Your task to perform on an android device: delete the emails in spam in the gmail app Image 0: 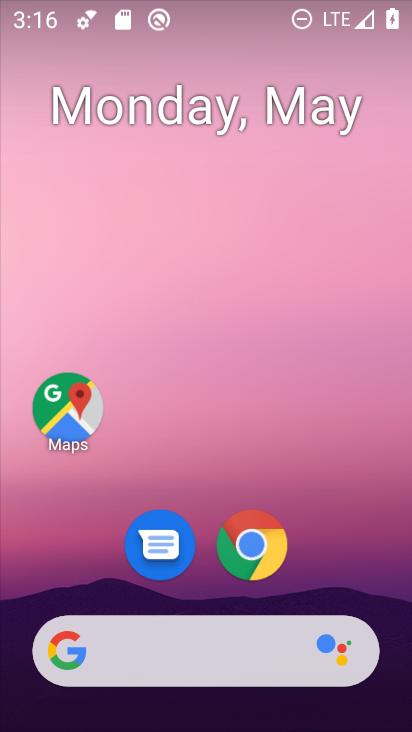
Step 0: click (231, 573)
Your task to perform on an android device: delete the emails in spam in the gmail app Image 1: 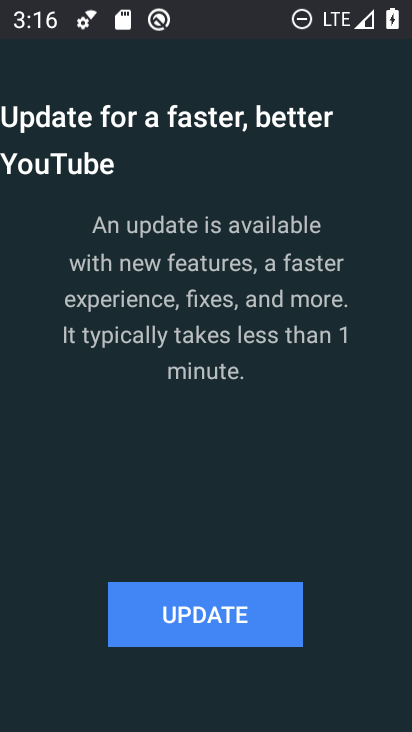
Step 1: press home button
Your task to perform on an android device: delete the emails in spam in the gmail app Image 2: 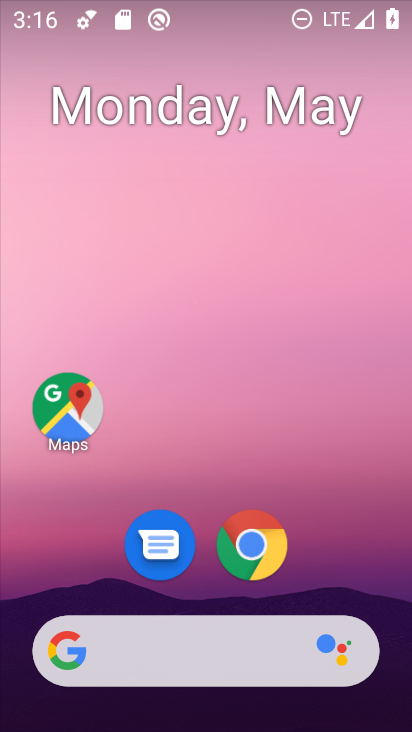
Step 2: drag from (316, 501) to (338, 206)
Your task to perform on an android device: delete the emails in spam in the gmail app Image 3: 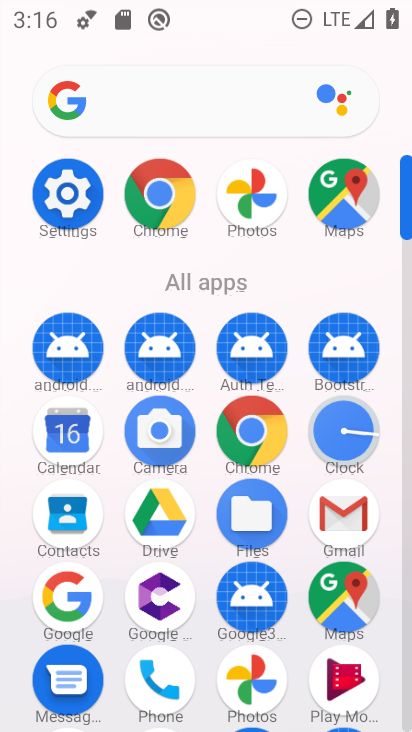
Step 3: click (340, 526)
Your task to perform on an android device: delete the emails in spam in the gmail app Image 4: 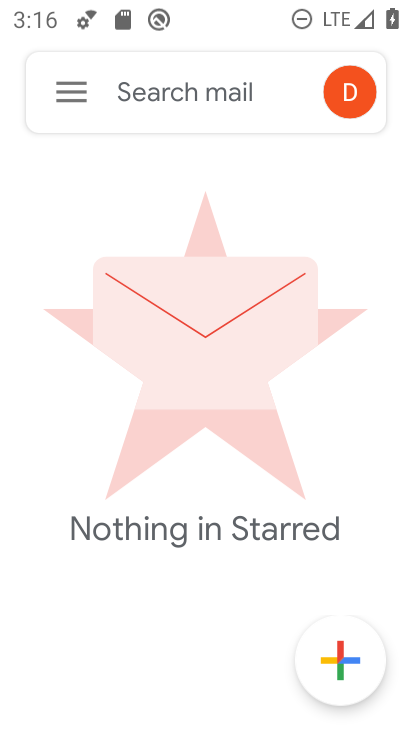
Step 4: click (70, 98)
Your task to perform on an android device: delete the emails in spam in the gmail app Image 5: 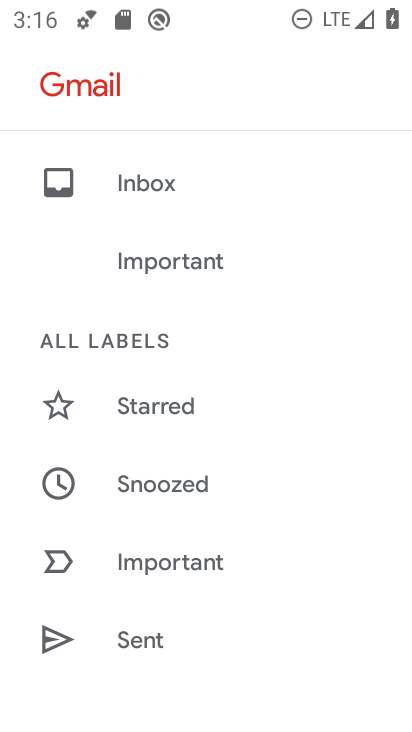
Step 5: drag from (239, 596) to (237, 270)
Your task to perform on an android device: delete the emails in spam in the gmail app Image 6: 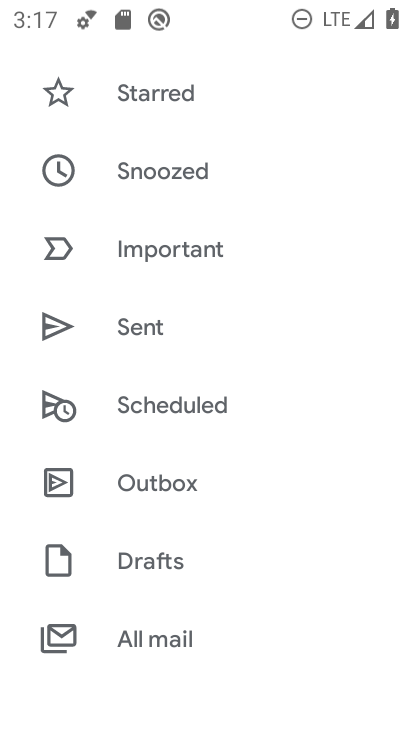
Step 6: drag from (206, 629) to (209, 405)
Your task to perform on an android device: delete the emails in spam in the gmail app Image 7: 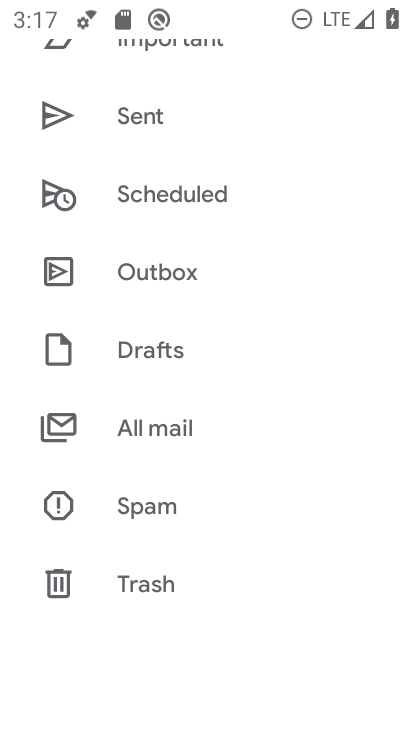
Step 7: drag from (157, 582) to (180, 661)
Your task to perform on an android device: delete the emails in spam in the gmail app Image 8: 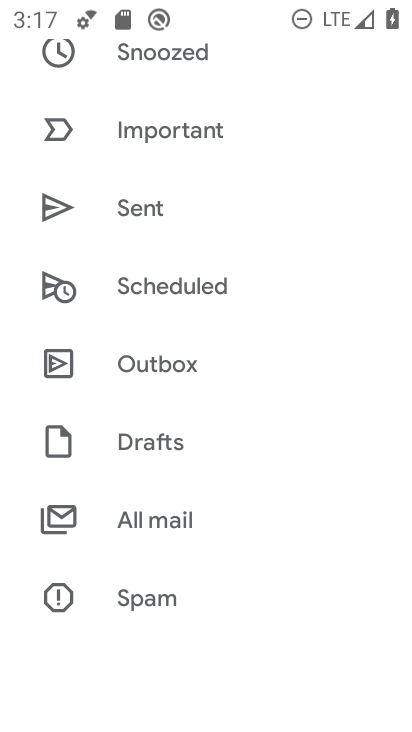
Step 8: click (172, 603)
Your task to perform on an android device: delete the emails in spam in the gmail app Image 9: 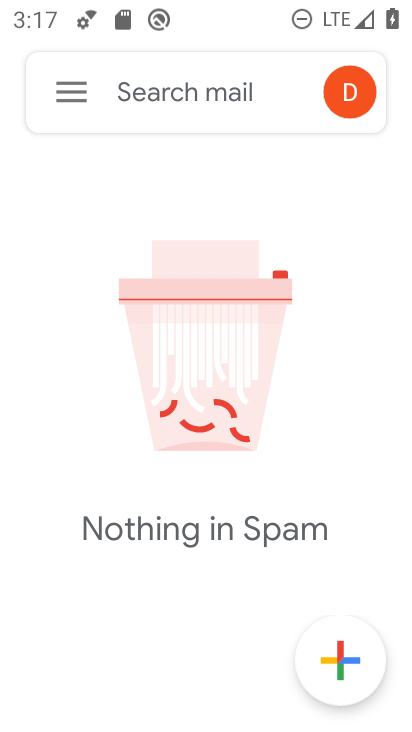
Step 9: task complete